Your task to perform on an android device: Open privacy settings Image 0: 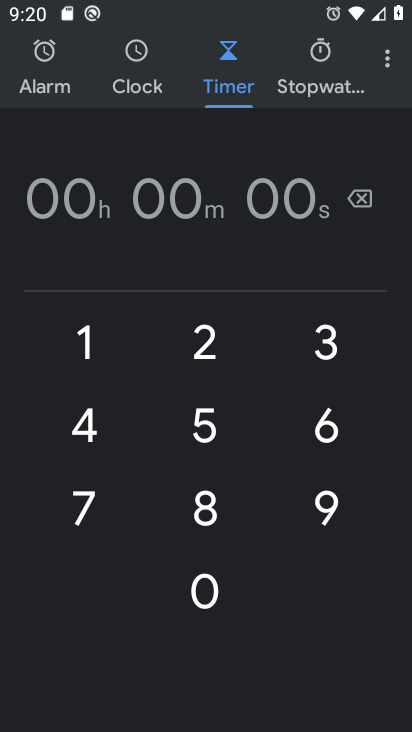
Step 0: press home button
Your task to perform on an android device: Open privacy settings Image 1: 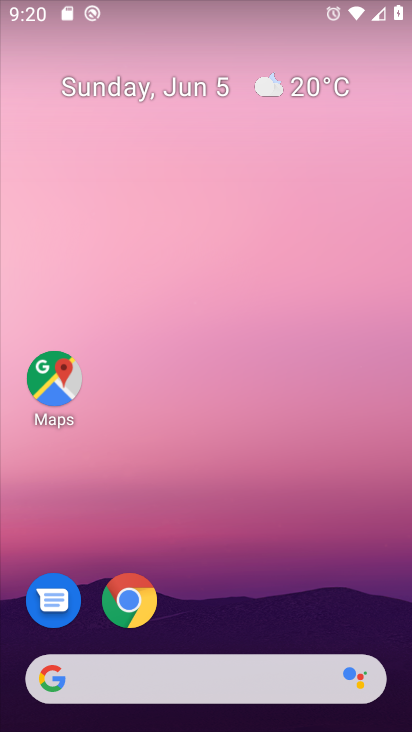
Step 1: drag from (245, 509) to (260, 26)
Your task to perform on an android device: Open privacy settings Image 2: 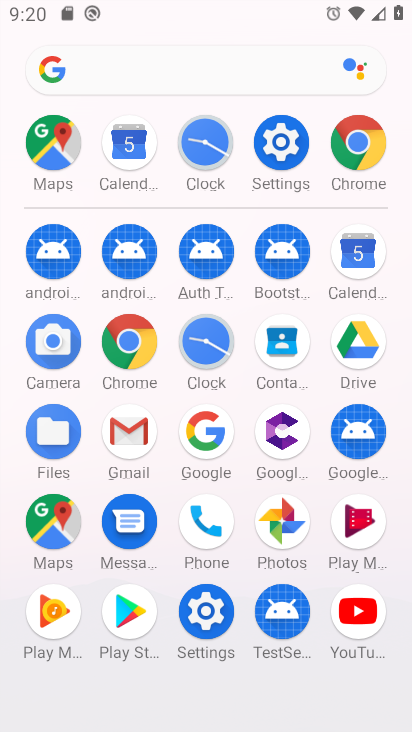
Step 2: click (281, 152)
Your task to perform on an android device: Open privacy settings Image 3: 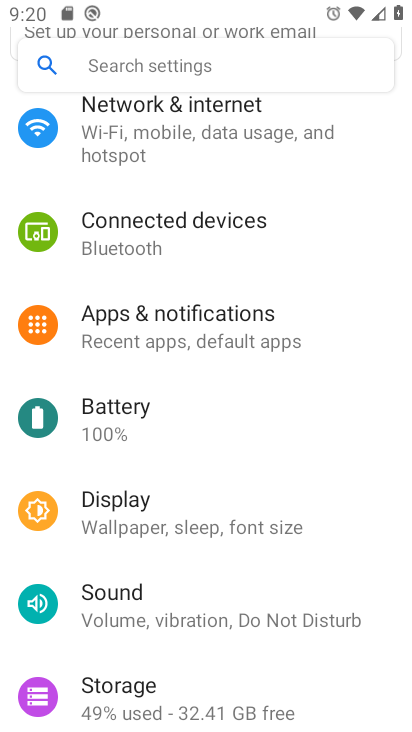
Step 3: drag from (253, 432) to (242, 16)
Your task to perform on an android device: Open privacy settings Image 4: 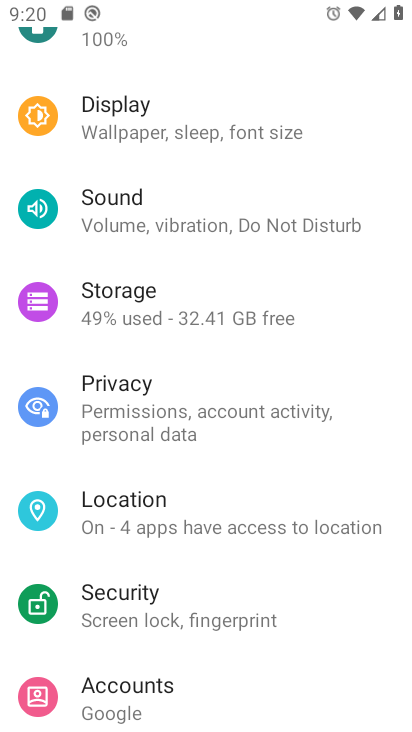
Step 4: click (213, 408)
Your task to perform on an android device: Open privacy settings Image 5: 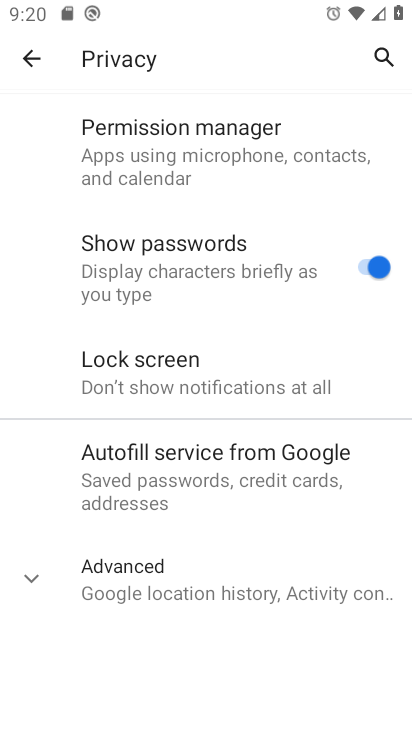
Step 5: task complete